Your task to perform on an android device: open app "PUBG MOBILE" (install if not already installed) and enter user name: "phenomenologically@gmail.com" and password: "artillery" Image 0: 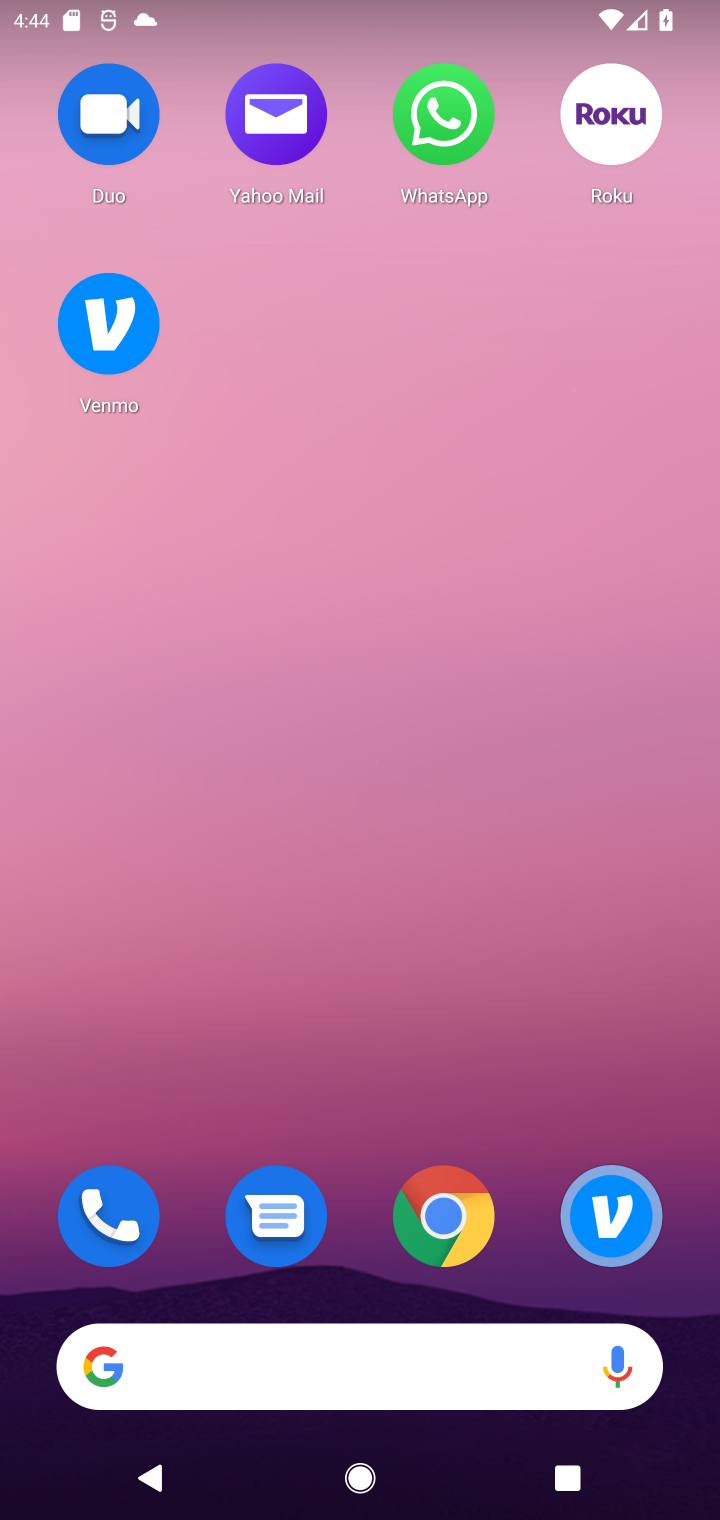
Step 0: drag from (409, 1025) to (372, 317)
Your task to perform on an android device: open app "PUBG MOBILE" (install if not already installed) and enter user name: "phenomenologically@gmail.com" and password: "artillery" Image 1: 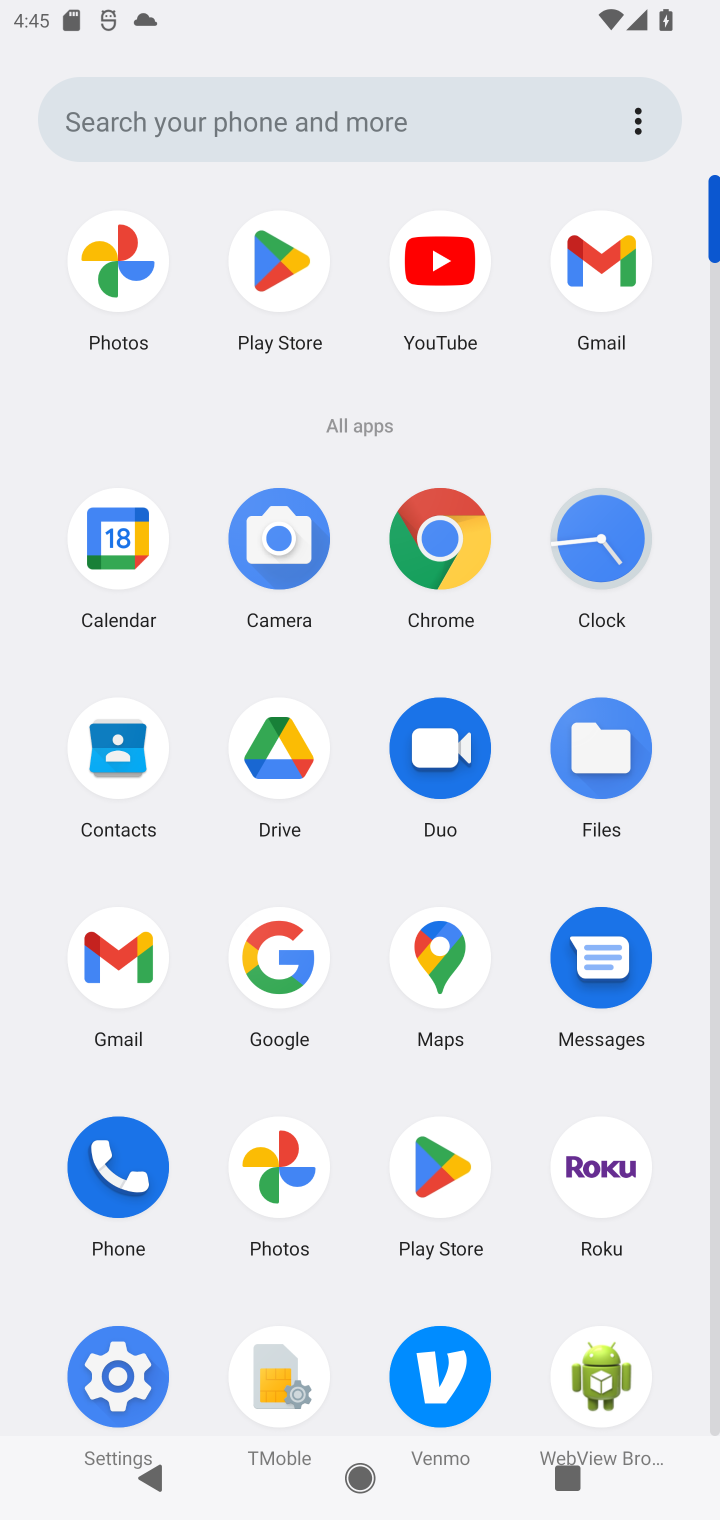
Step 1: click (288, 249)
Your task to perform on an android device: open app "PUBG MOBILE" (install if not already installed) and enter user name: "phenomenologically@gmail.com" and password: "artillery" Image 2: 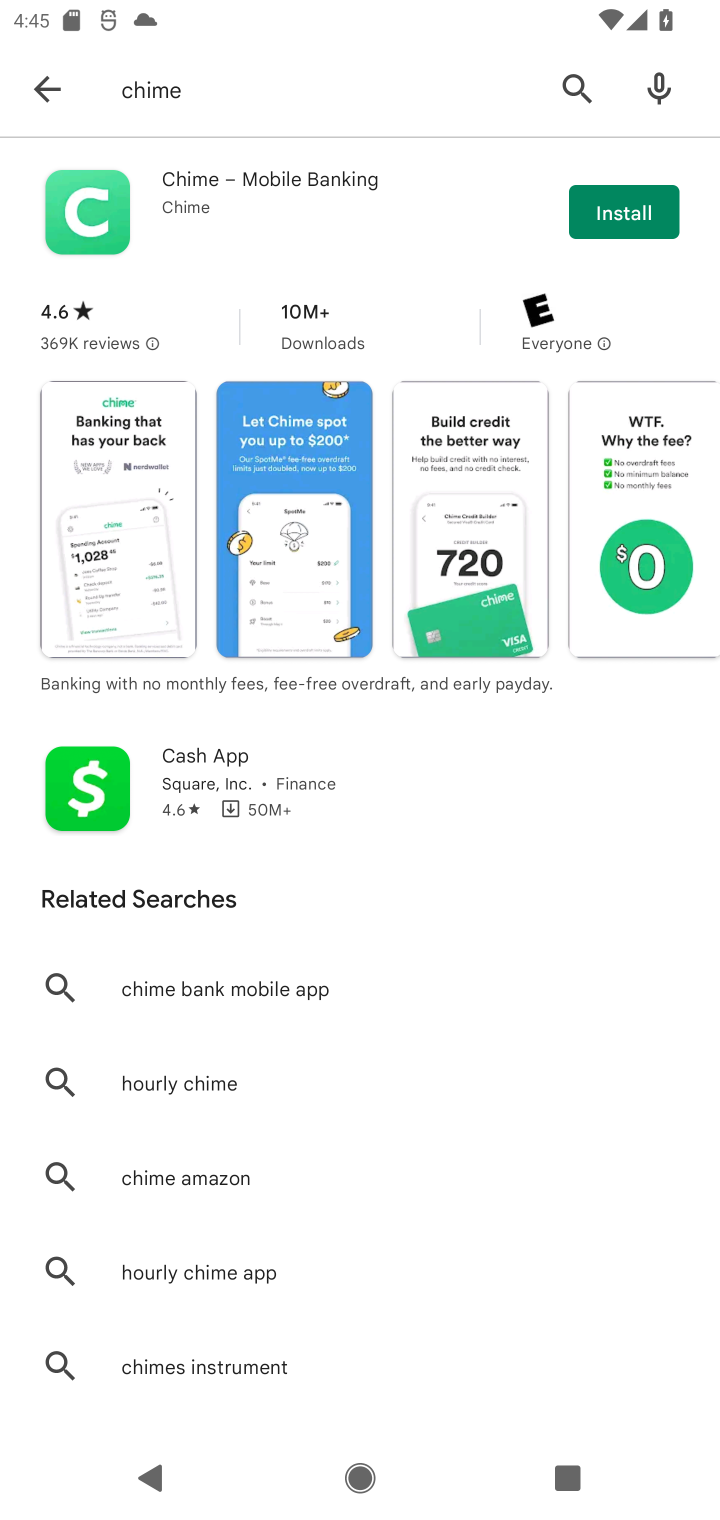
Step 2: click (559, 69)
Your task to perform on an android device: open app "PUBG MOBILE" (install if not already installed) and enter user name: "phenomenologically@gmail.com" and password: "artillery" Image 3: 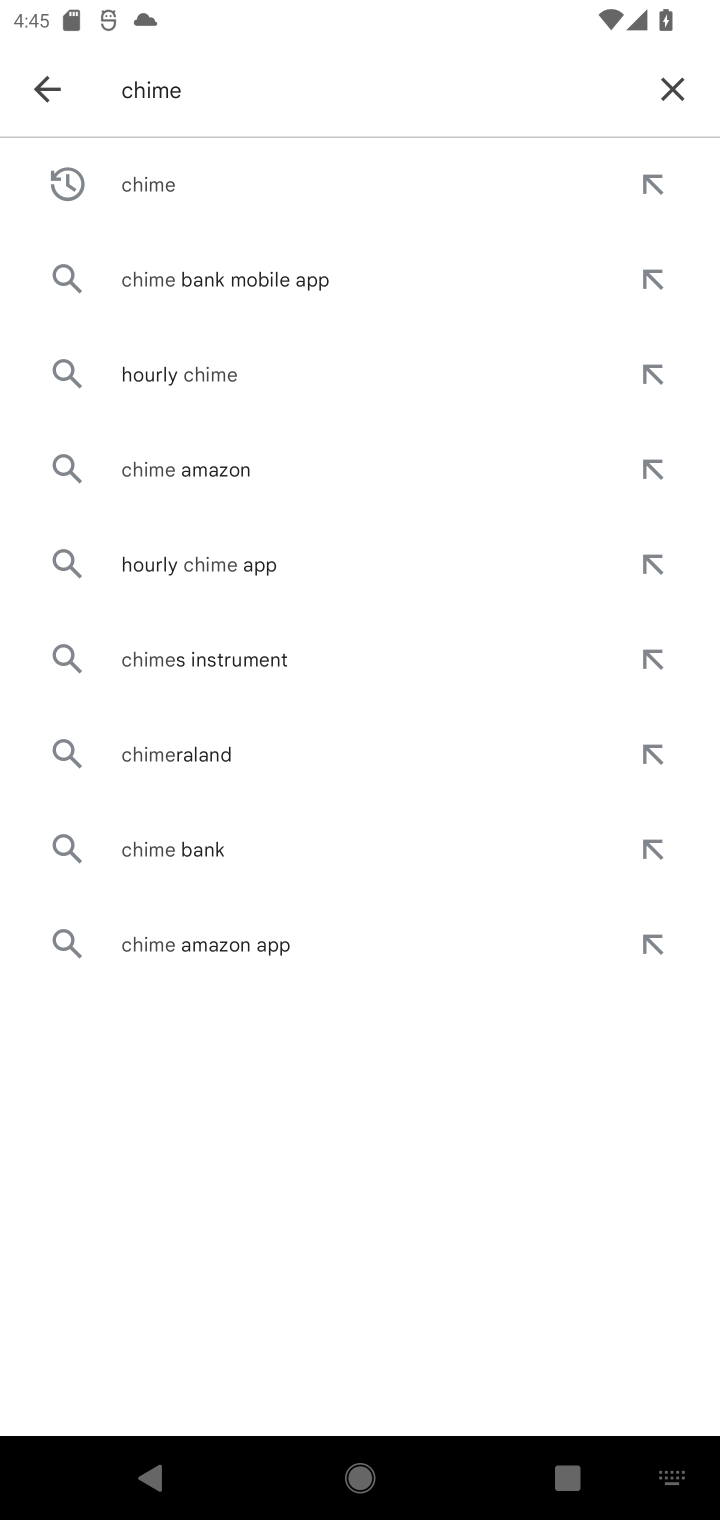
Step 3: click (670, 96)
Your task to perform on an android device: open app "PUBG MOBILE" (install if not already installed) and enter user name: "phenomenologically@gmail.com" and password: "artillery" Image 4: 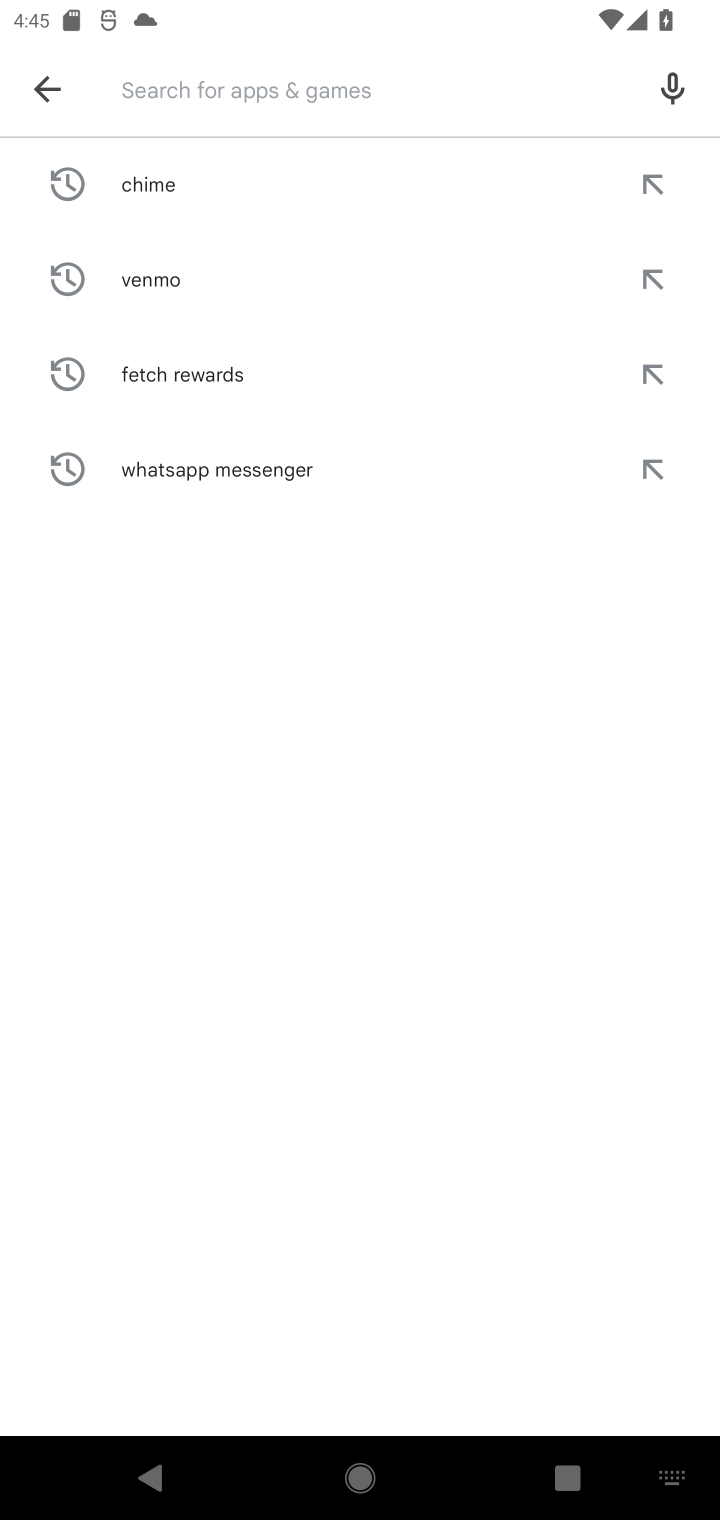
Step 4: type "PUBG MOBILE"
Your task to perform on an android device: open app "PUBG MOBILE" (install if not already installed) and enter user name: "phenomenologically@gmail.com" and password: "artillery" Image 5: 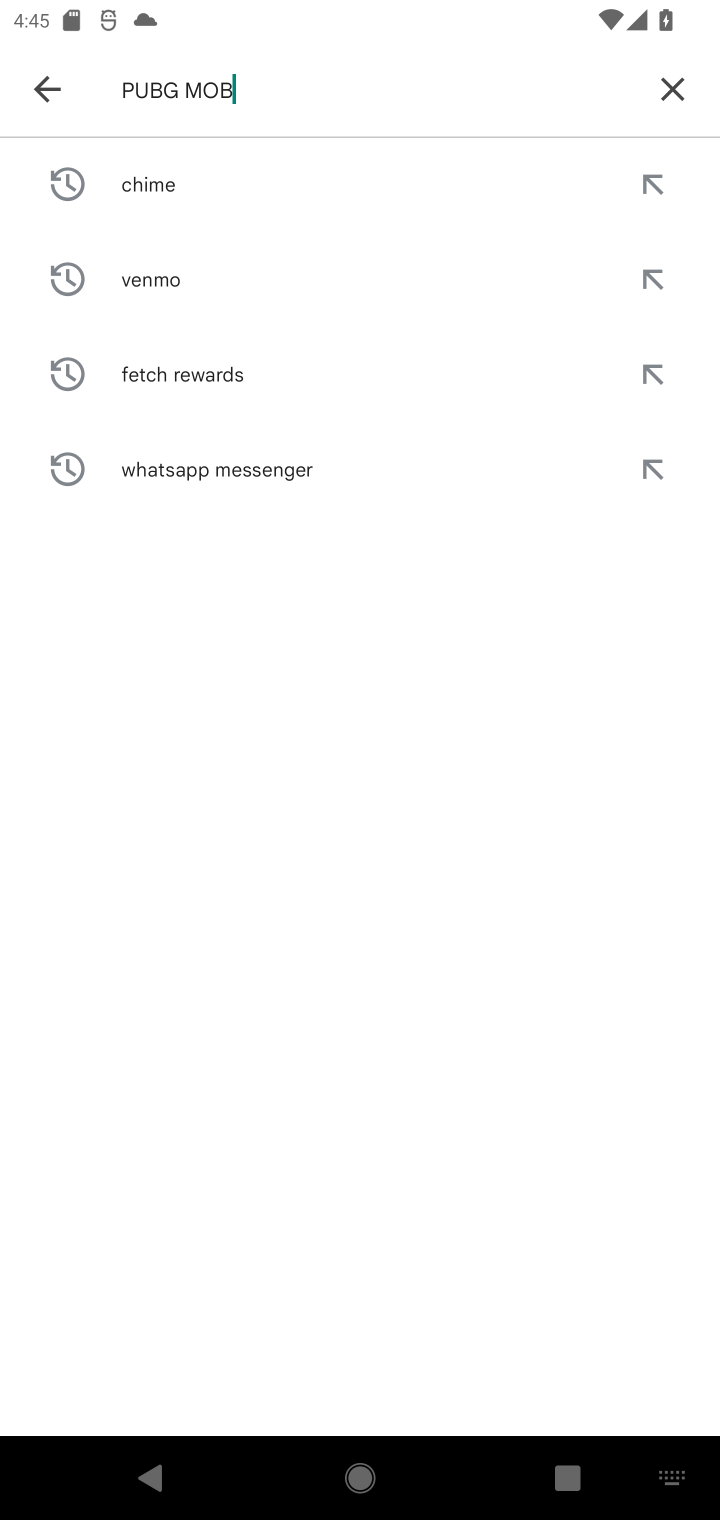
Step 5: type ""
Your task to perform on an android device: open app "PUBG MOBILE" (install if not already installed) and enter user name: "phenomenologically@gmail.com" and password: "artillery" Image 6: 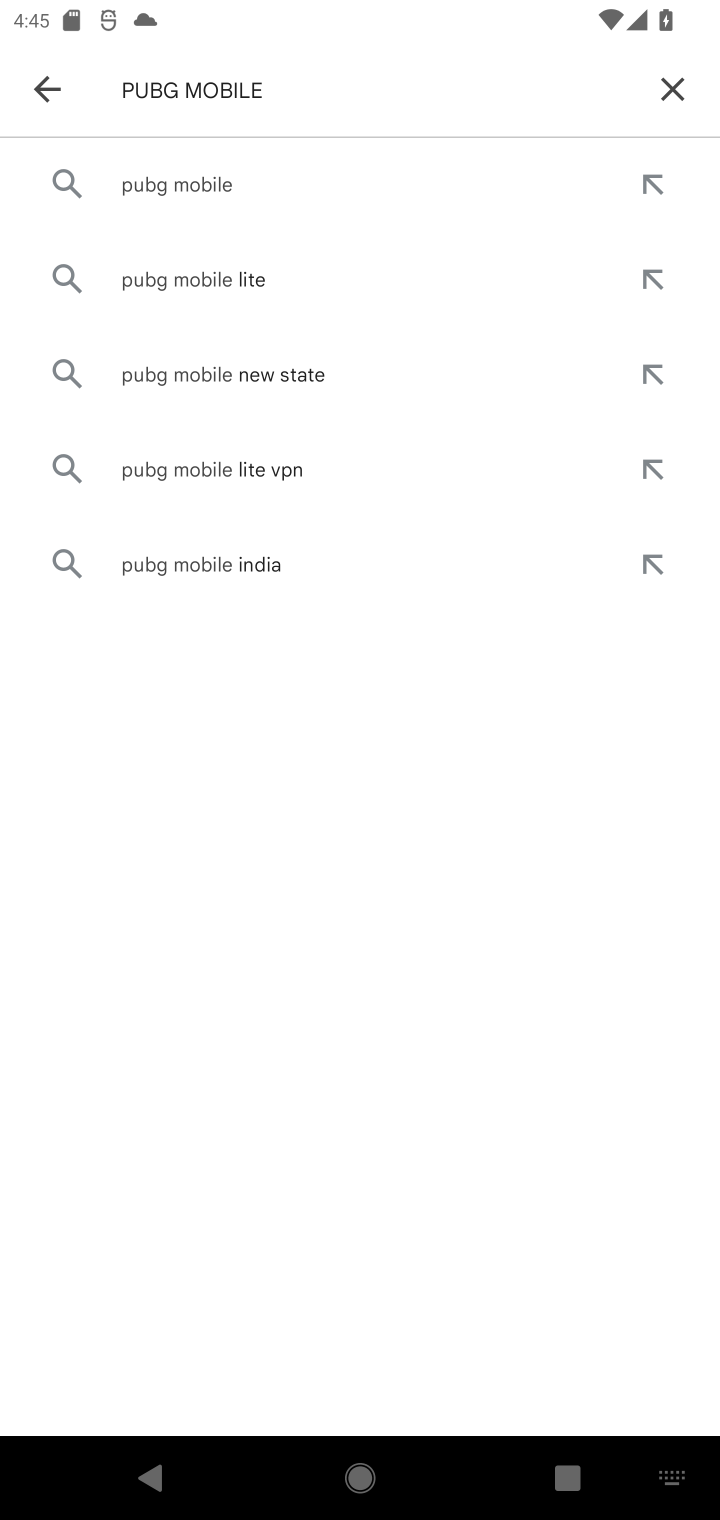
Step 6: click (322, 174)
Your task to perform on an android device: open app "PUBG MOBILE" (install if not already installed) and enter user name: "phenomenologically@gmail.com" and password: "artillery" Image 7: 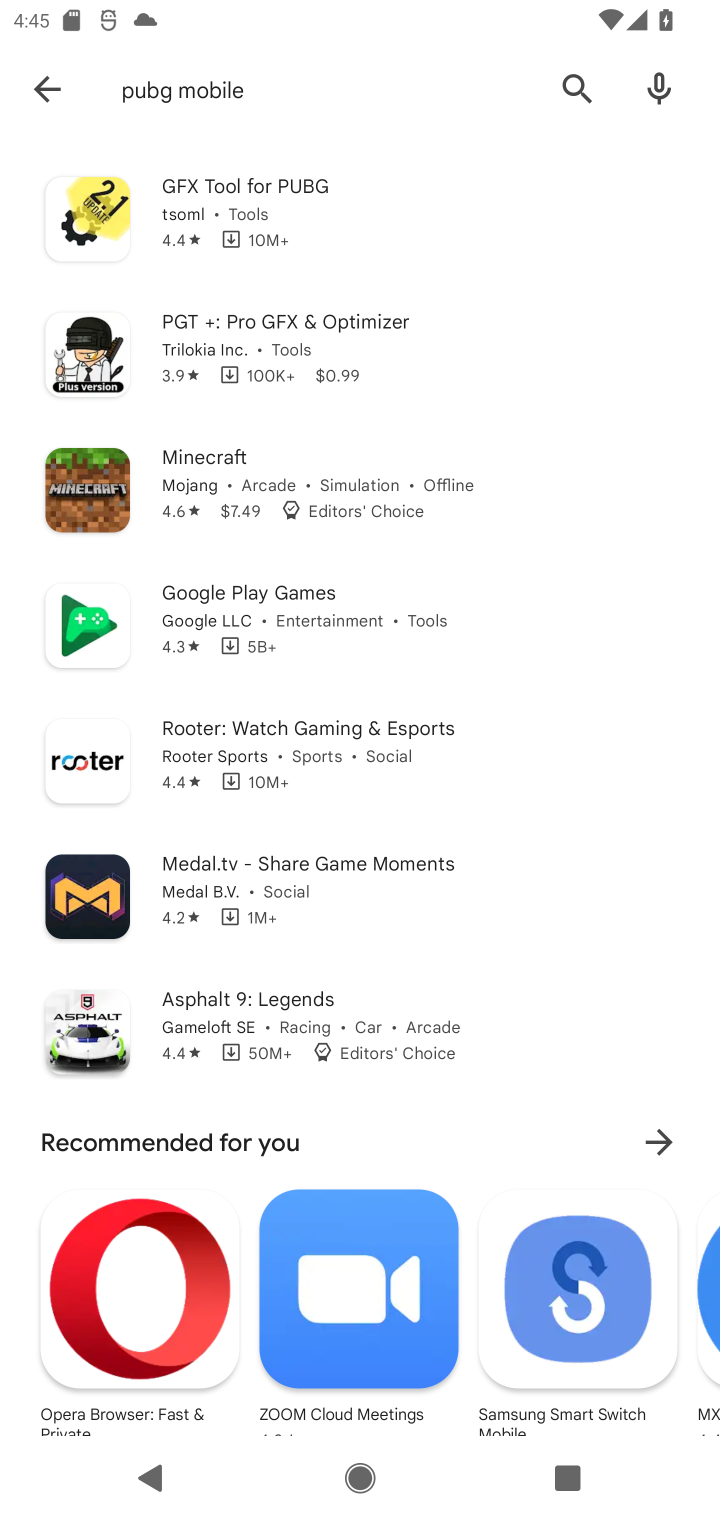
Step 7: task complete